Your task to perform on an android device: remove spam from my inbox in the gmail app Image 0: 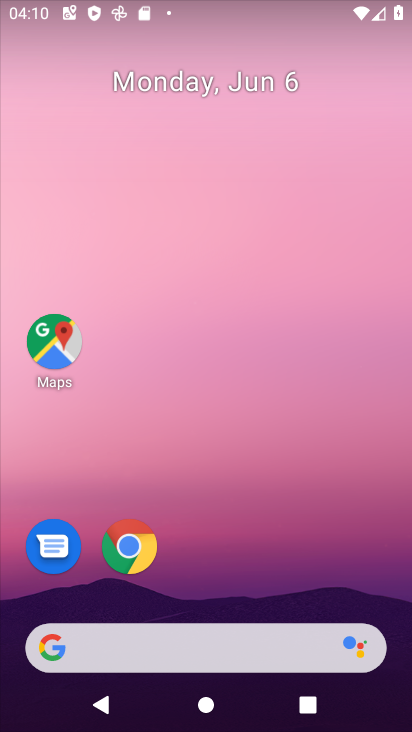
Step 0: drag from (346, 551) to (258, 134)
Your task to perform on an android device: remove spam from my inbox in the gmail app Image 1: 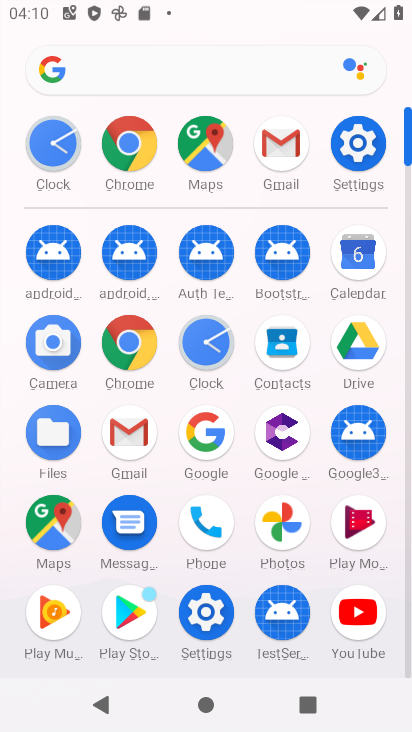
Step 1: click (137, 464)
Your task to perform on an android device: remove spam from my inbox in the gmail app Image 2: 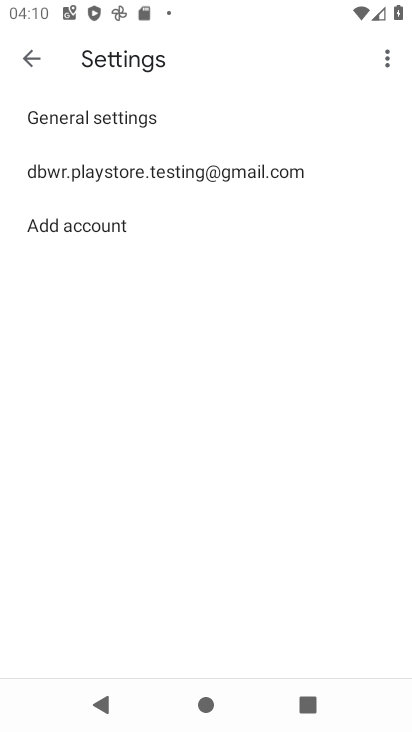
Step 2: click (39, 68)
Your task to perform on an android device: remove spam from my inbox in the gmail app Image 3: 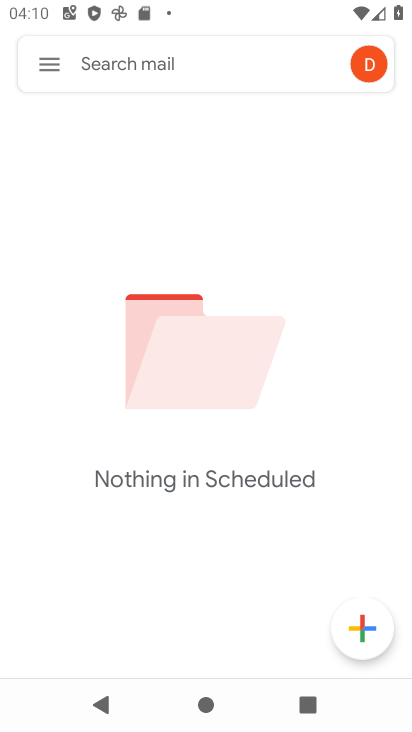
Step 3: click (59, 67)
Your task to perform on an android device: remove spam from my inbox in the gmail app Image 4: 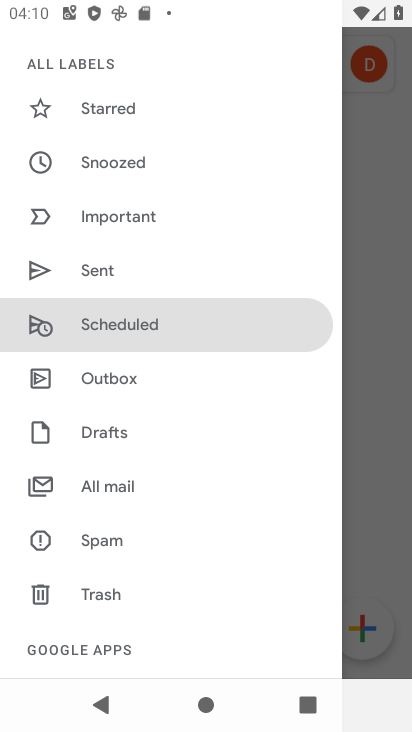
Step 4: drag from (168, 624) to (122, 302)
Your task to perform on an android device: remove spam from my inbox in the gmail app Image 5: 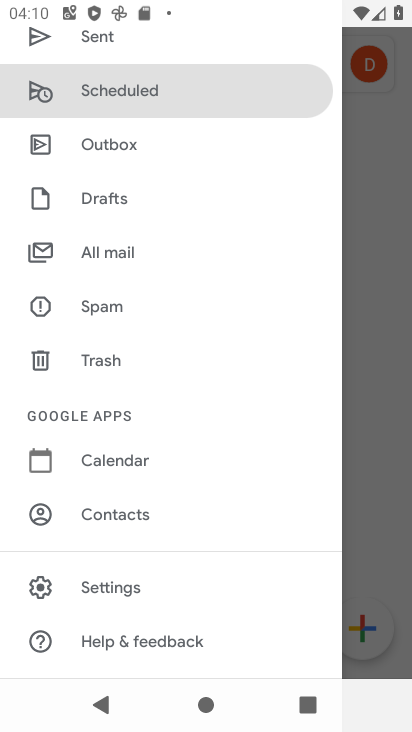
Step 5: click (89, 314)
Your task to perform on an android device: remove spam from my inbox in the gmail app Image 6: 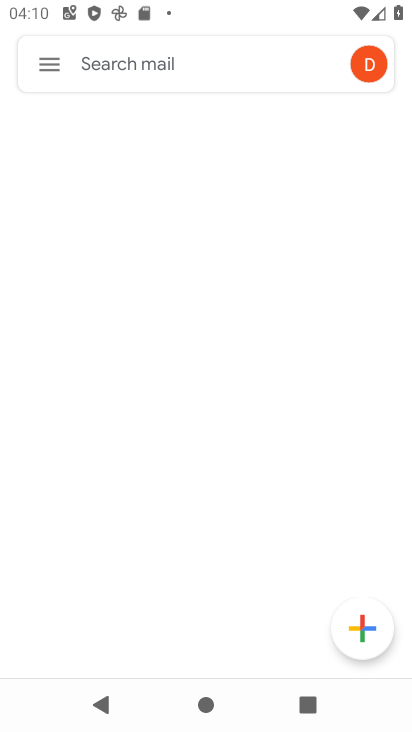
Step 6: task complete